Your task to perform on an android device: Open wifi settings Image 0: 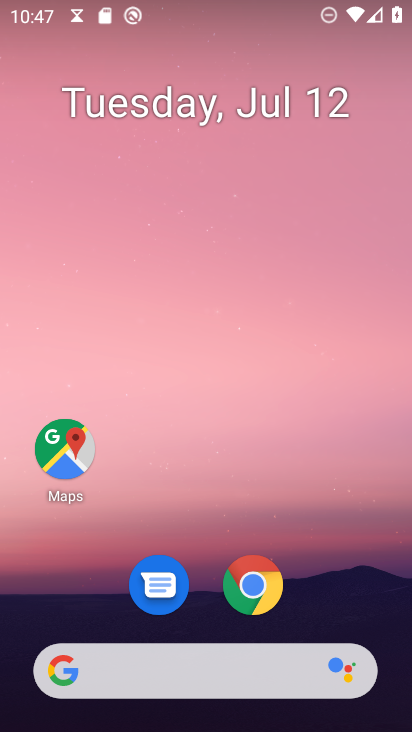
Step 0: press home button
Your task to perform on an android device: Open wifi settings Image 1: 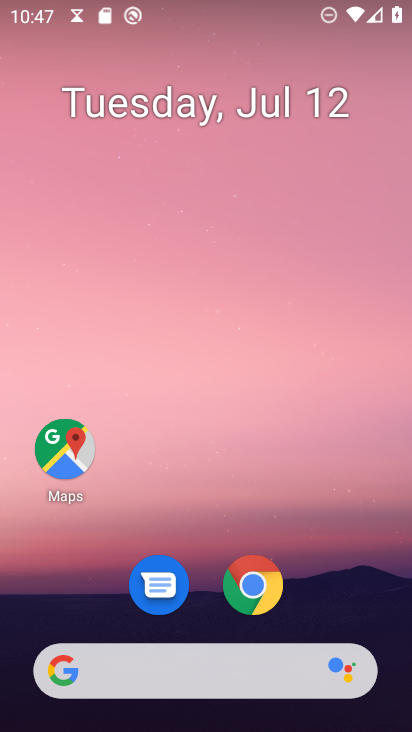
Step 1: drag from (227, 619) to (314, 95)
Your task to perform on an android device: Open wifi settings Image 2: 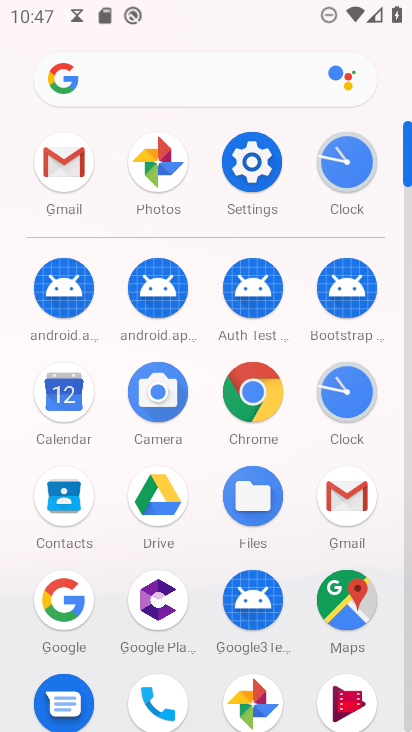
Step 2: click (250, 172)
Your task to perform on an android device: Open wifi settings Image 3: 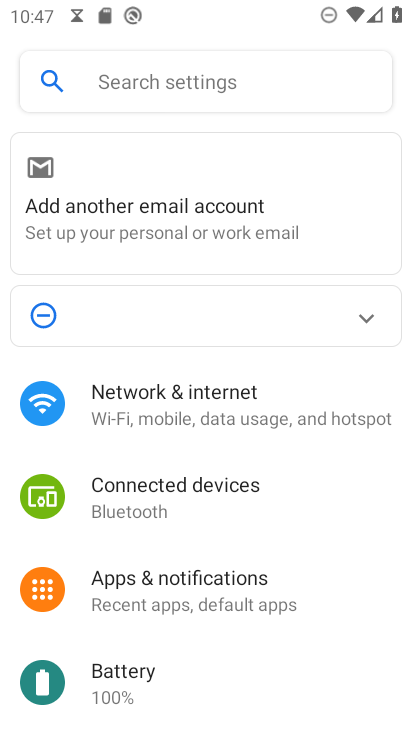
Step 3: click (160, 416)
Your task to perform on an android device: Open wifi settings Image 4: 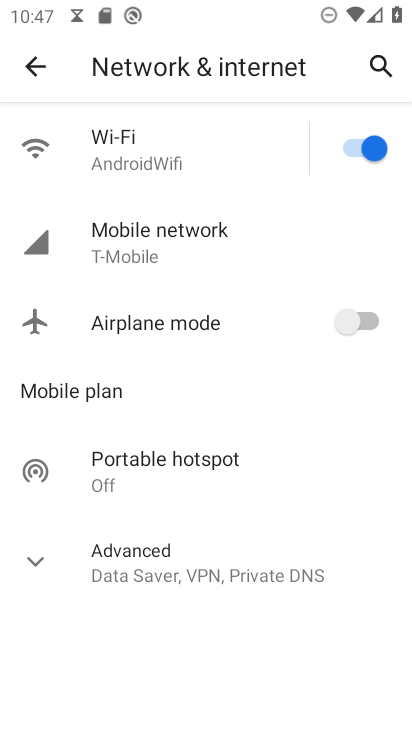
Step 4: click (123, 152)
Your task to perform on an android device: Open wifi settings Image 5: 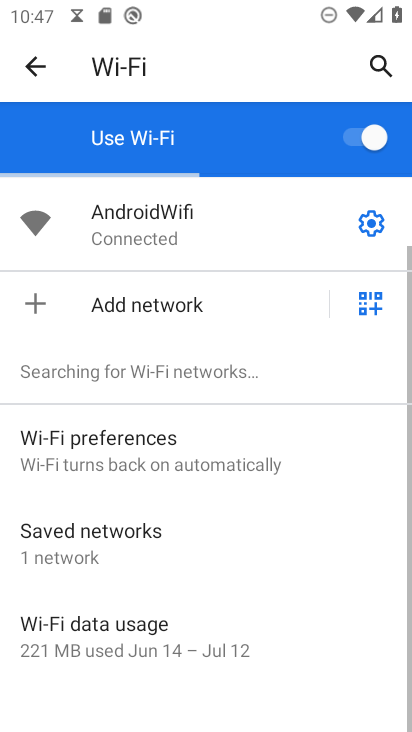
Step 5: task complete